Your task to perform on an android device: Play the last video I watched on Youtube Image 0: 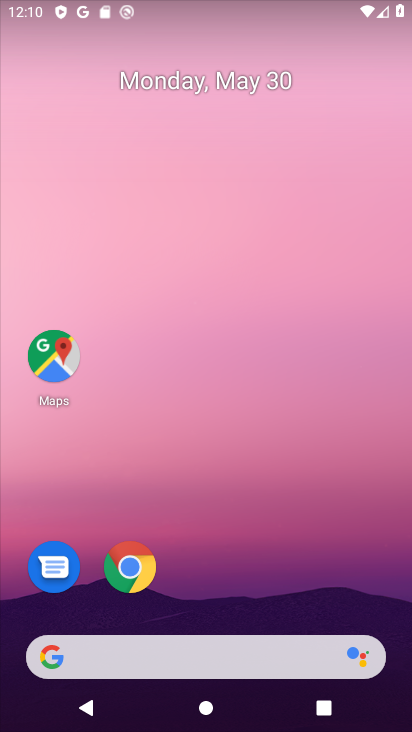
Step 0: press home button
Your task to perform on an android device: Play the last video I watched on Youtube Image 1: 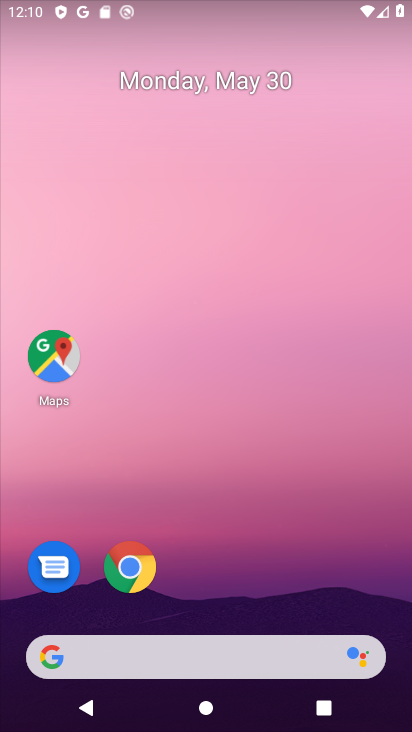
Step 1: press home button
Your task to perform on an android device: Play the last video I watched on Youtube Image 2: 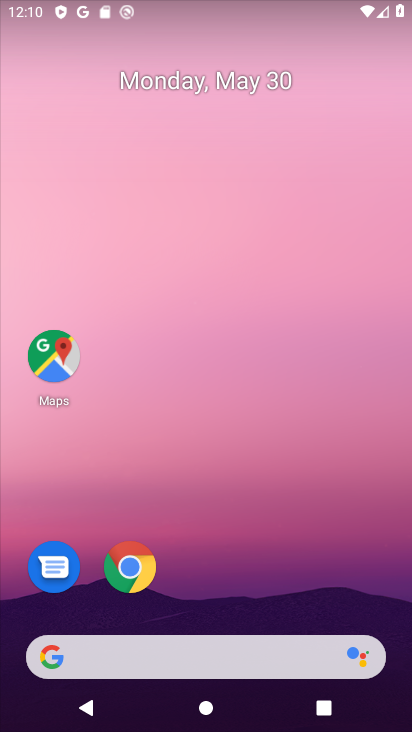
Step 2: drag from (226, 618) to (241, 48)
Your task to perform on an android device: Play the last video I watched on Youtube Image 3: 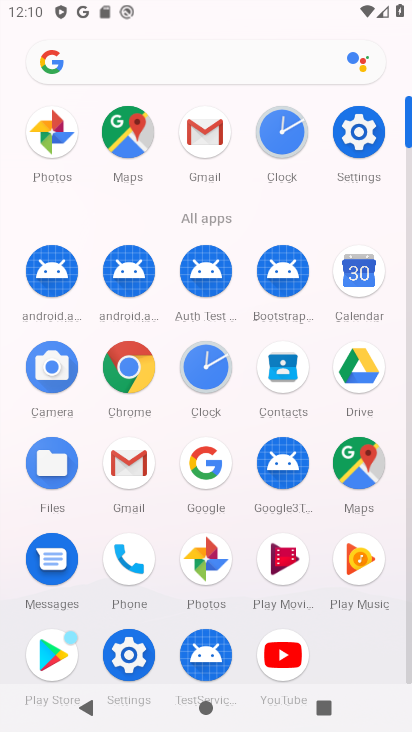
Step 3: click (288, 646)
Your task to perform on an android device: Play the last video I watched on Youtube Image 4: 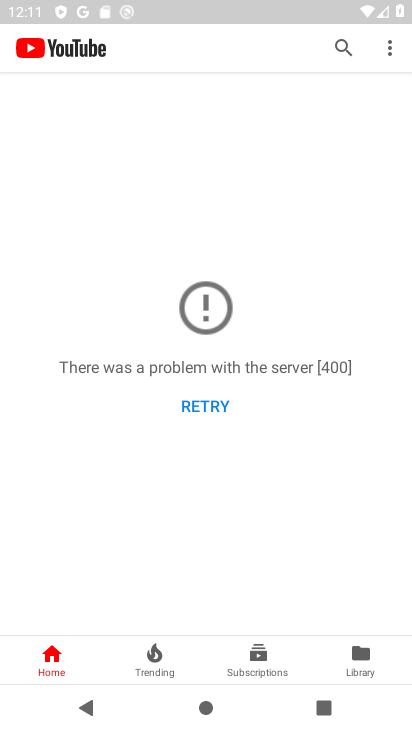
Step 4: click (365, 664)
Your task to perform on an android device: Play the last video I watched on Youtube Image 5: 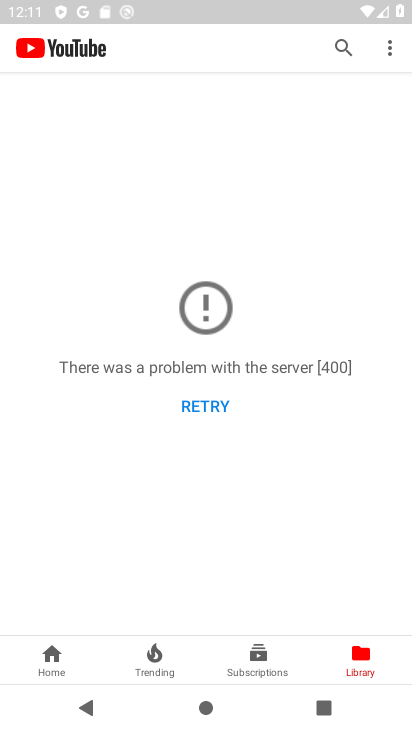
Step 5: task complete